Your task to perform on an android device: change notifications settings Image 0: 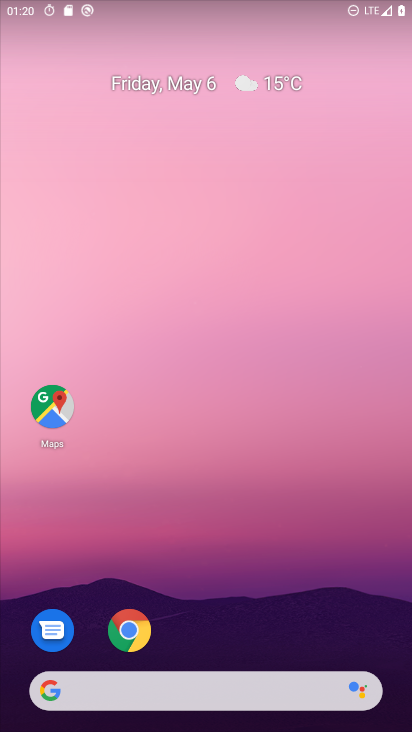
Step 0: drag from (304, 587) to (253, 23)
Your task to perform on an android device: change notifications settings Image 1: 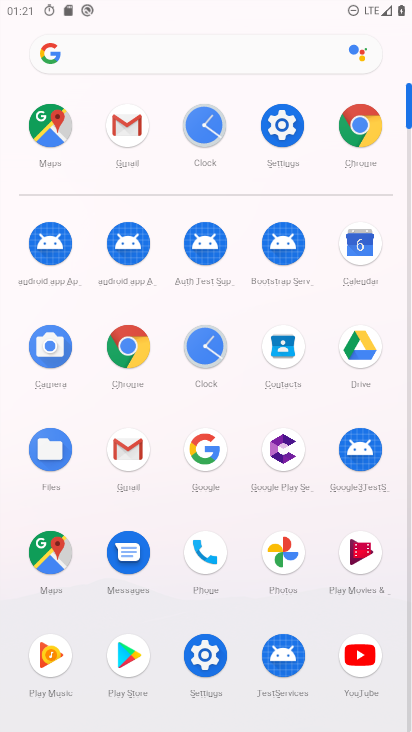
Step 1: click (282, 138)
Your task to perform on an android device: change notifications settings Image 2: 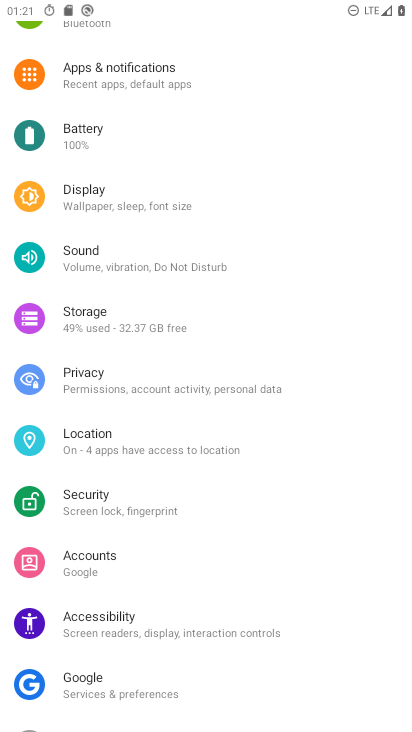
Step 2: click (150, 93)
Your task to perform on an android device: change notifications settings Image 3: 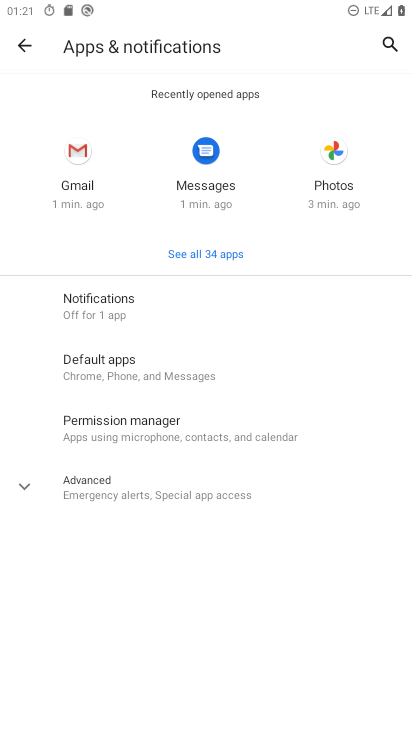
Step 3: click (135, 318)
Your task to perform on an android device: change notifications settings Image 4: 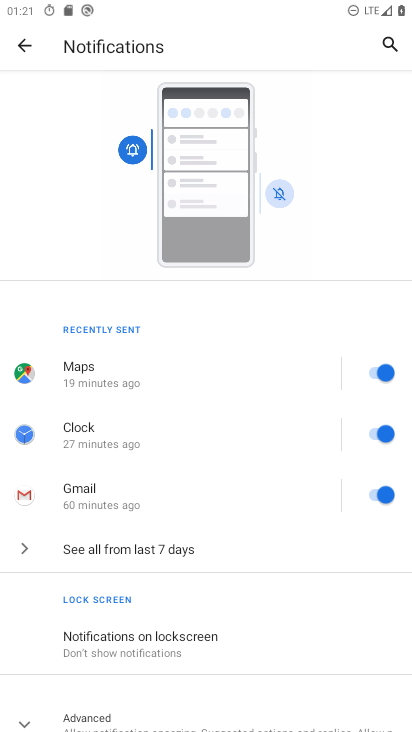
Step 4: drag from (286, 664) to (339, 314)
Your task to perform on an android device: change notifications settings Image 5: 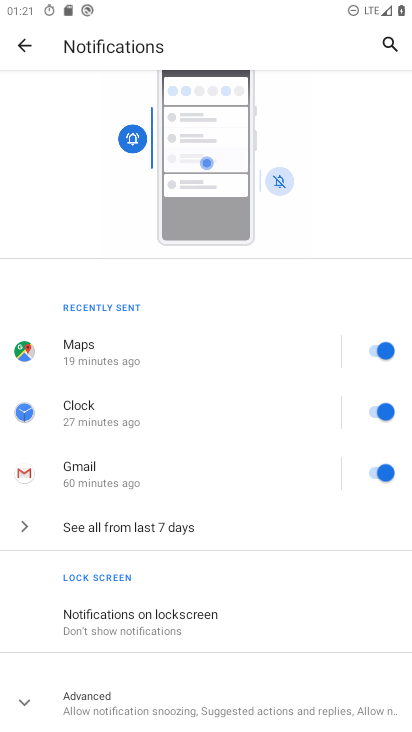
Step 5: click (285, 180)
Your task to perform on an android device: change notifications settings Image 6: 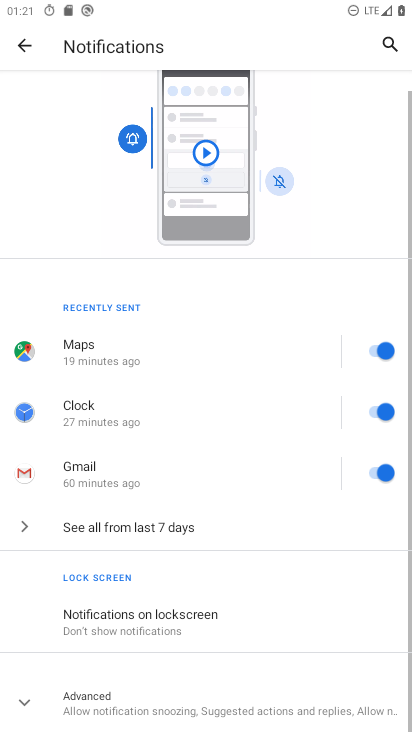
Step 6: click (278, 178)
Your task to perform on an android device: change notifications settings Image 7: 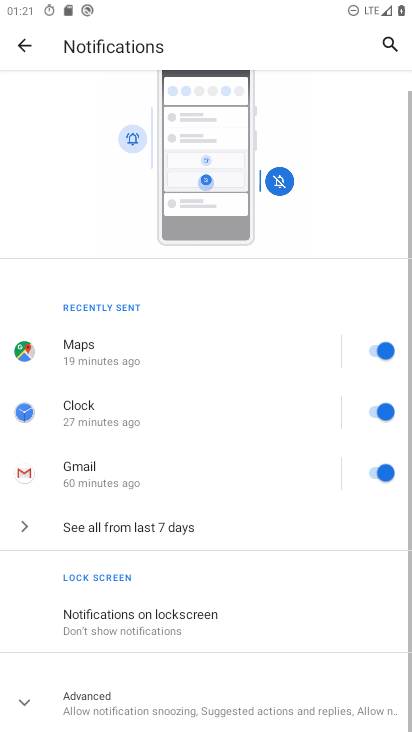
Step 7: task complete